Your task to perform on an android device: check out phone information Image 0: 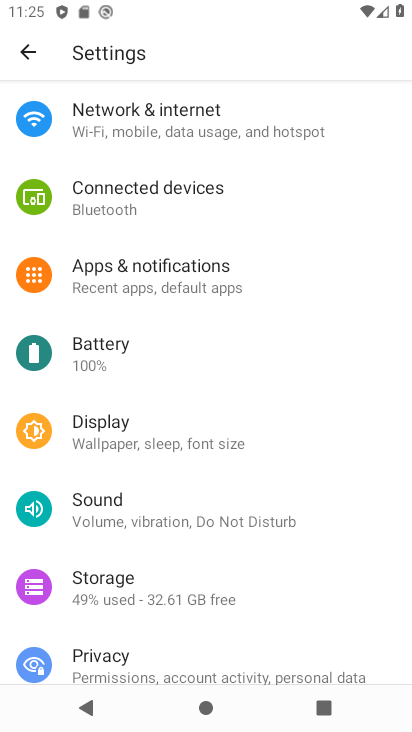
Step 0: press home button
Your task to perform on an android device: check out phone information Image 1: 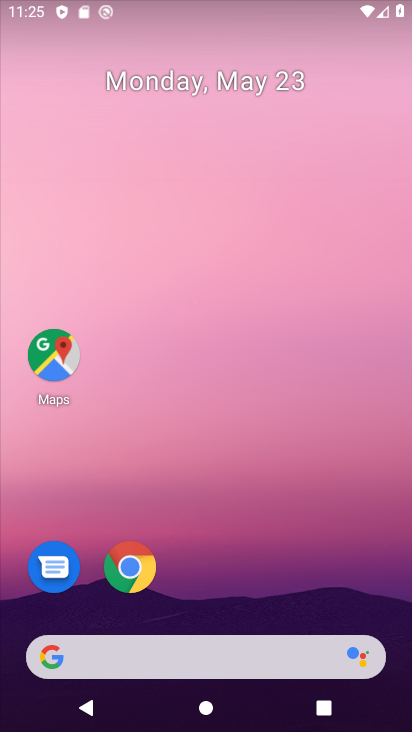
Step 1: drag from (356, 592) to (353, 169)
Your task to perform on an android device: check out phone information Image 2: 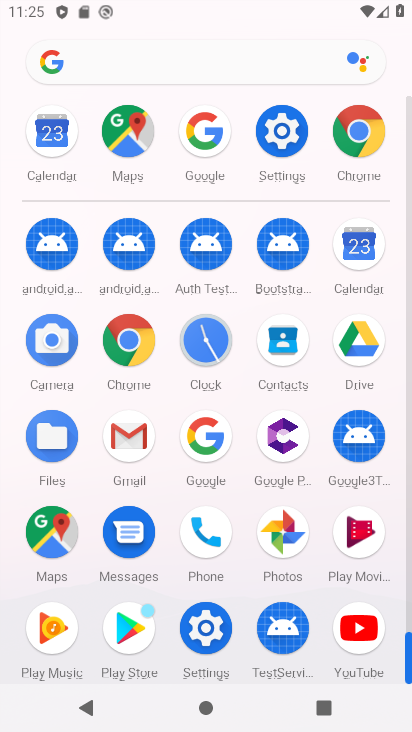
Step 2: drag from (195, 563) to (204, 287)
Your task to perform on an android device: check out phone information Image 3: 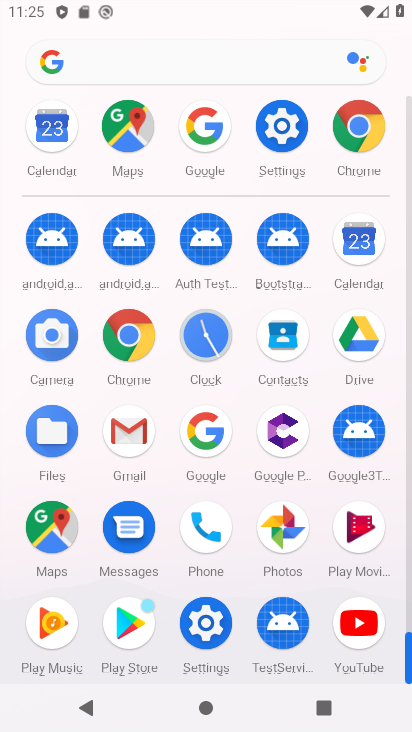
Step 3: click (202, 520)
Your task to perform on an android device: check out phone information Image 4: 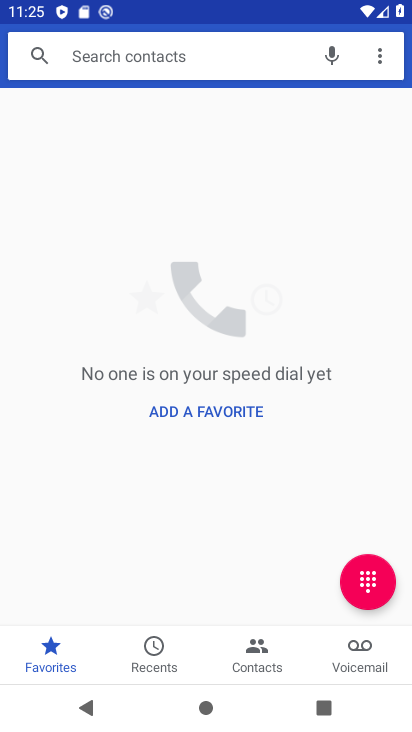
Step 4: task complete